Your task to perform on an android device: Open the Play Movies app and select the watchlist tab. Image 0: 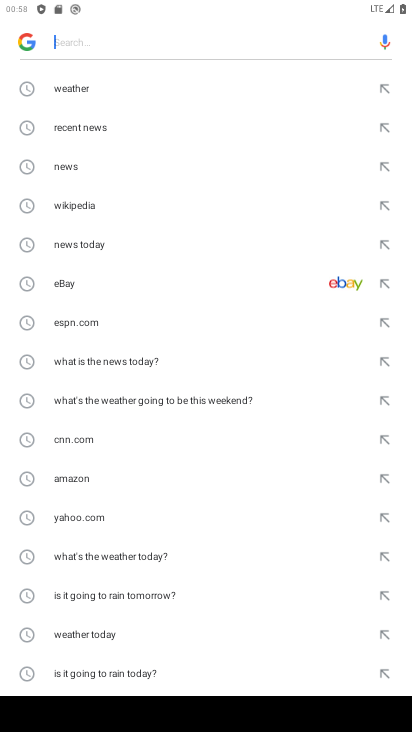
Step 0: press home button
Your task to perform on an android device: Open the Play Movies app and select the watchlist tab. Image 1: 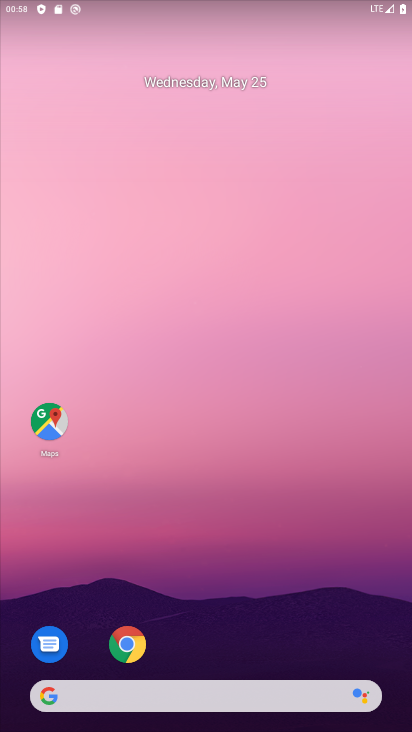
Step 1: drag from (214, 577) to (102, 15)
Your task to perform on an android device: Open the Play Movies app and select the watchlist tab. Image 2: 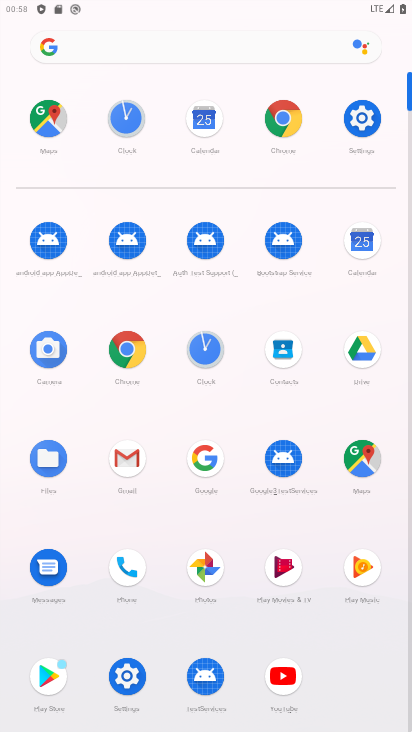
Step 2: click (280, 562)
Your task to perform on an android device: Open the Play Movies app and select the watchlist tab. Image 3: 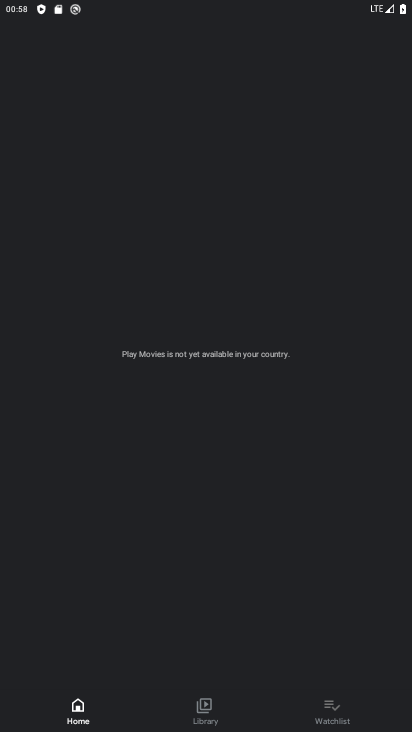
Step 3: click (332, 706)
Your task to perform on an android device: Open the Play Movies app and select the watchlist tab. Image 4: 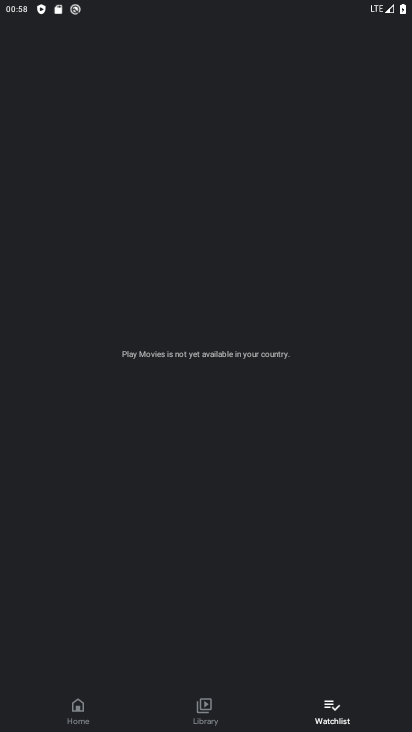
Step 4: task complete